Your task to perform on an android device: turn on sleep mode Image 0: 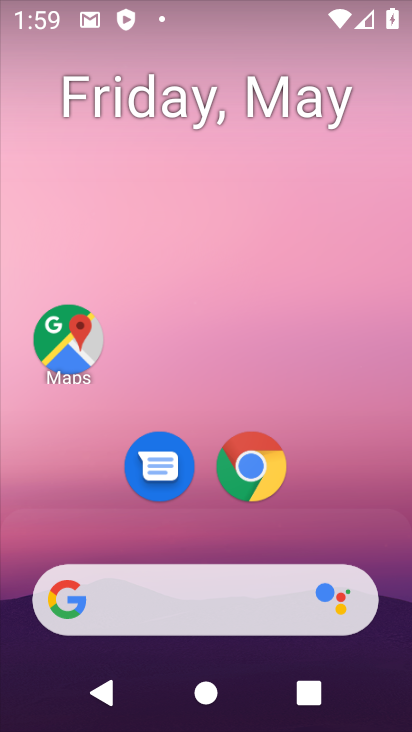
Step 0: drag from (150, 560) to (267, 6)
Your task to perform on an android device: turn on sleep mode Image 1: 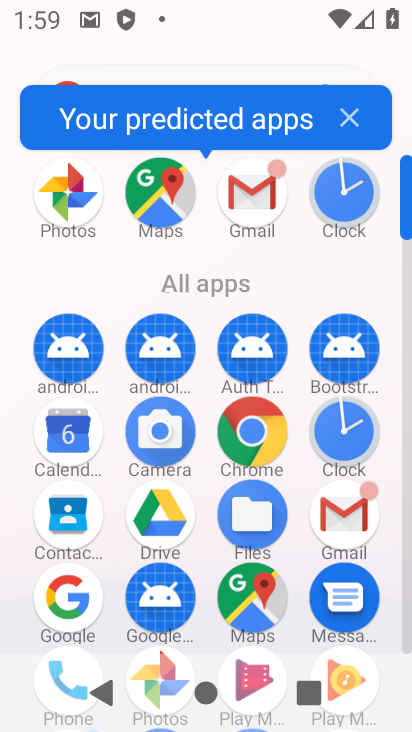
Step 1: drag from (159, 595) to (253, 152)
Your task to perform on an android device: turn on sleep mode Image 2: 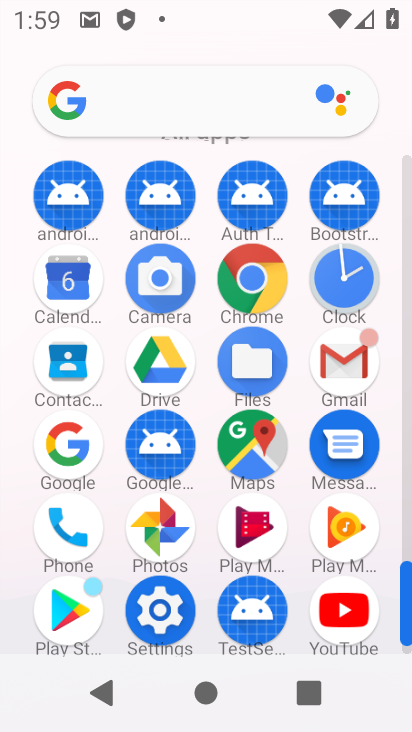
Step 2: click (164, 587)
Your task to perform on an android device: turn on sleep mode Image 3: 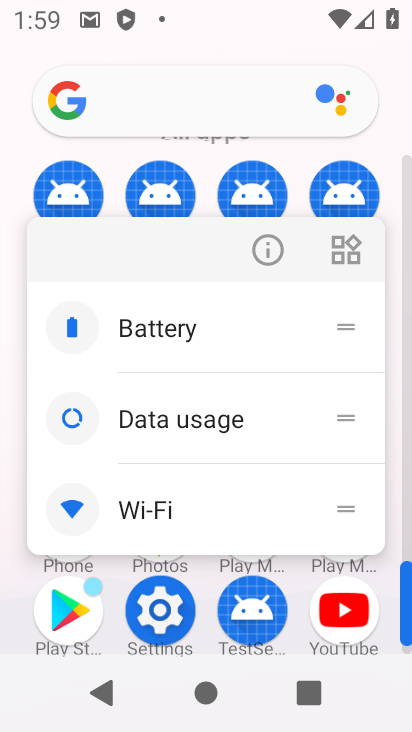
Step 3: click (170, 602)
Your task to perform on an android device: turn on sleep mode Image 4: 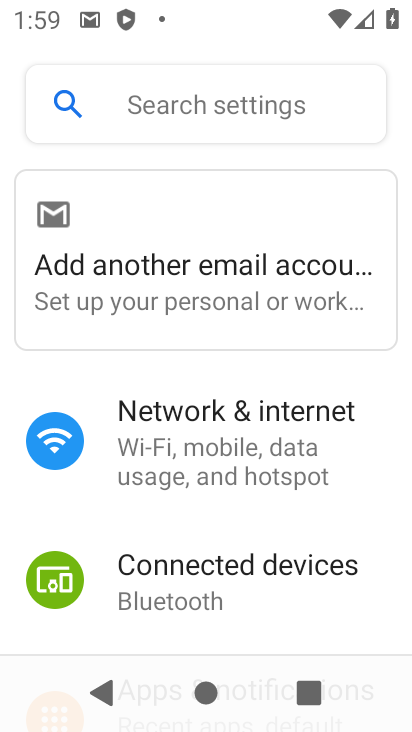
Step 4: drag from (210, 612) to (357, 89)
Your task to perform on an android device: turn on sleep mode Image 5: 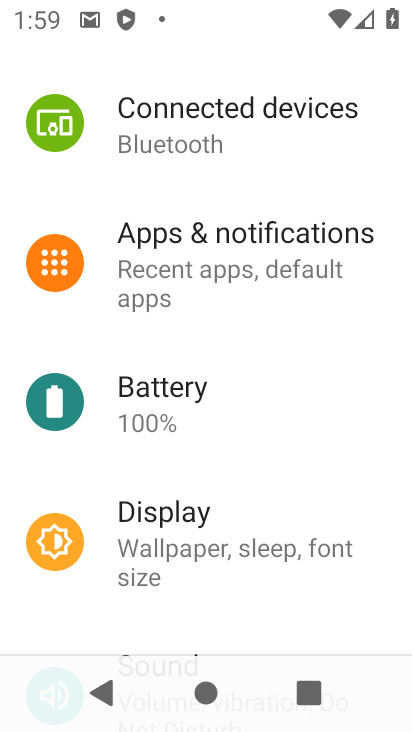
Step 5: click (202, 521)
Your task to perform on an android device: turn on sleep mode Image 6: 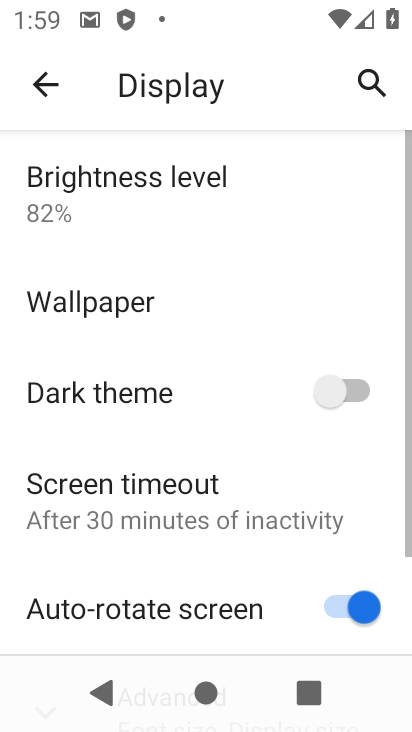
Step 6: drag from (177, 568) to (305, 124)
Your task to perform on an android device: turn on sleep mode Image 7: 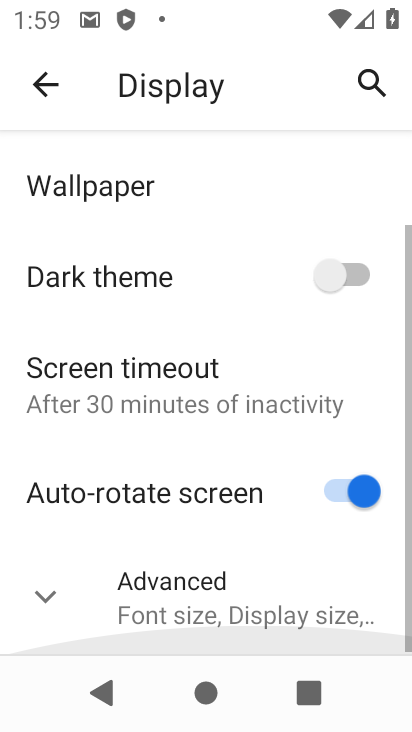
Step 7: click (159, 589)
Your task to perform on an android device: turn on sleep mode Image 8: 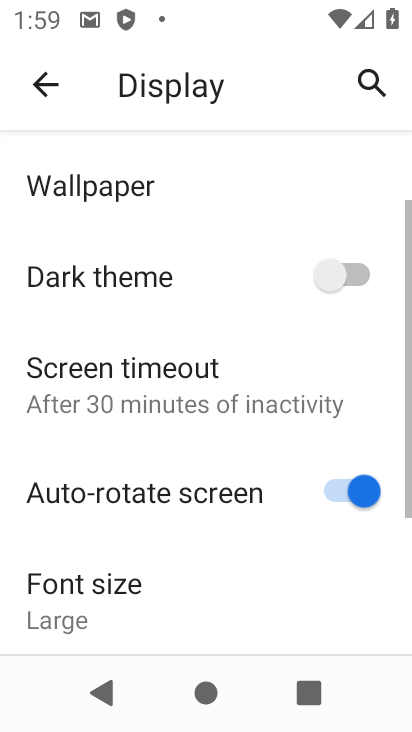
Step 8: task complete